Your task to perform on an android device: Go to Google maps Image 0: 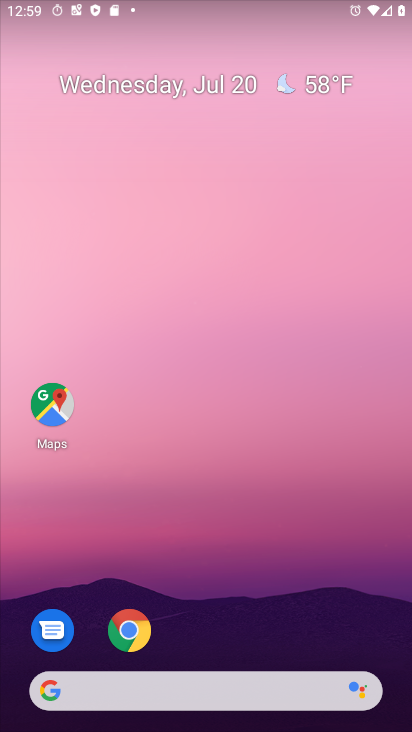
Step 0: click (31, 444)
Your task to perform on an android device: Go to Google maps Image 1: 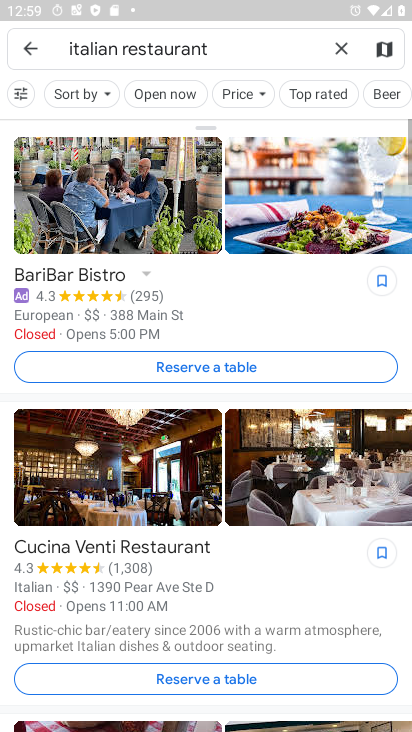
Step 1: click (30, 41)
Your task to perform on an android device: Go to Google maps Image 2: 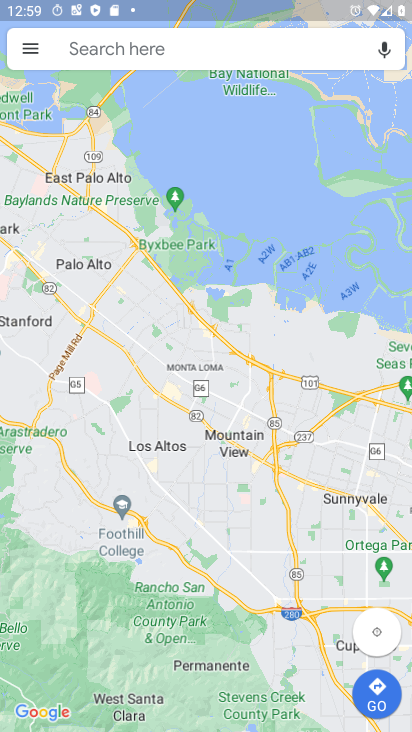
Step 2: task complete